Your task to perform on an android device: Open the stopwatch Image 0: 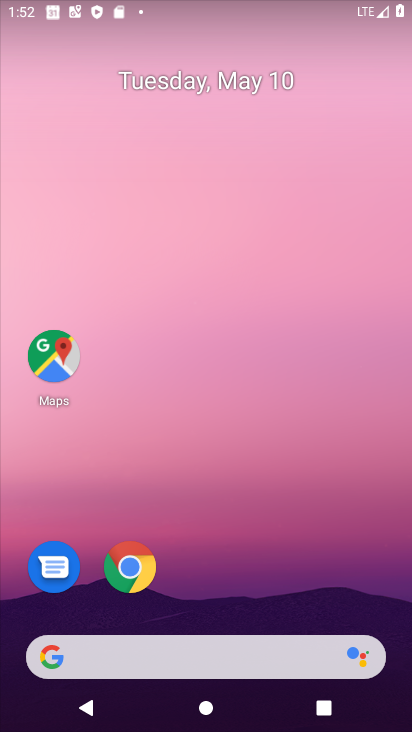
Step 0: drag from (384, 636) to (264, 54)
Your task to perform on an android device: Open the stopwatch Image 1: 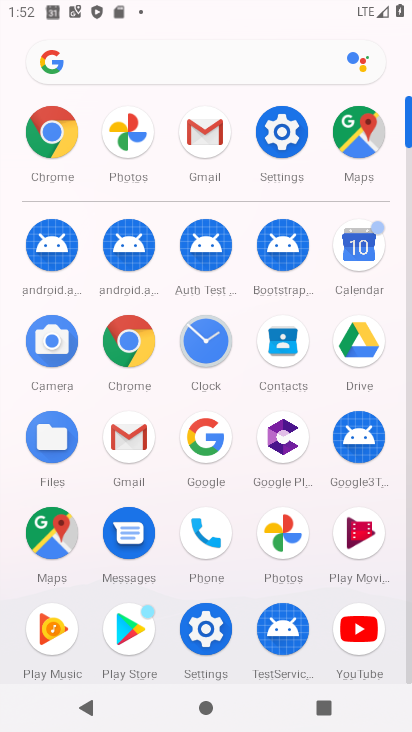
Step 1: click (224, 347)
Your task to perform on an android device: Open the stopwatch Image 2: 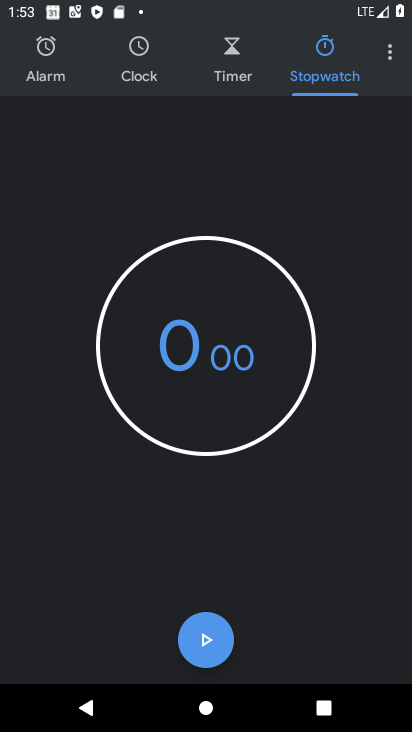
Step 2: task complete